Your task to perform on an android device: see tabs open on other devices in the chrome app Image 0: 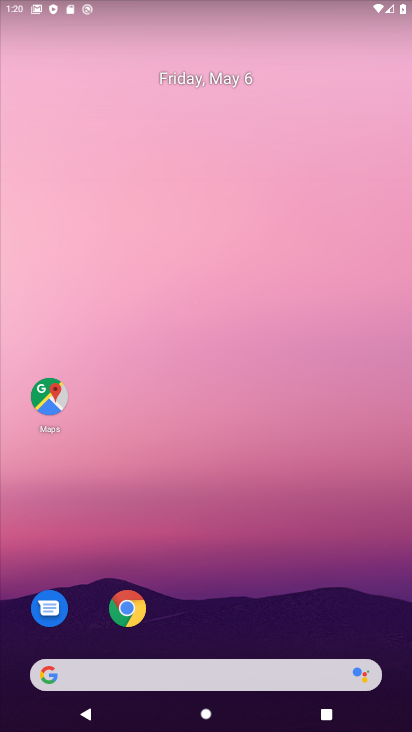
Step 0: click (129, 607)
Your task to perform on an android device: see tabs open on other devices in the chrome app Image 1: 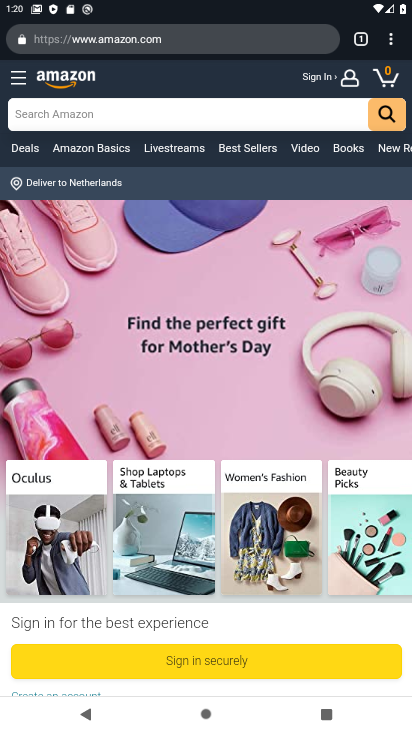
Step 1: click (356, 37)
Your task to perform on an android device: see tabs open on other devices in the chrome app Image 2: 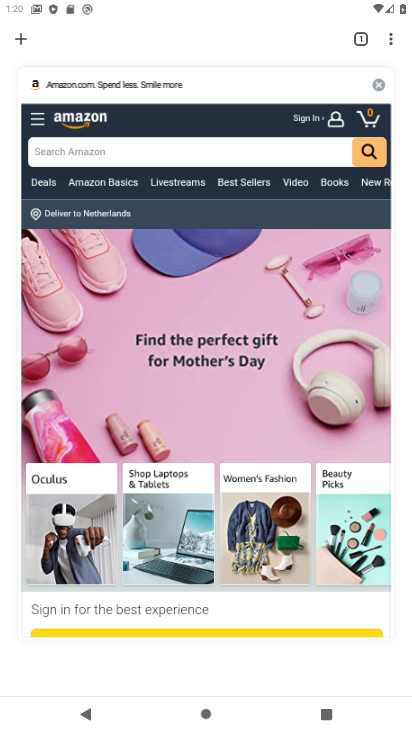
Step 2: task complete